Your task to perform on an android device: Open Google Chrome and click the shortcut for Amazon.com Image 0: 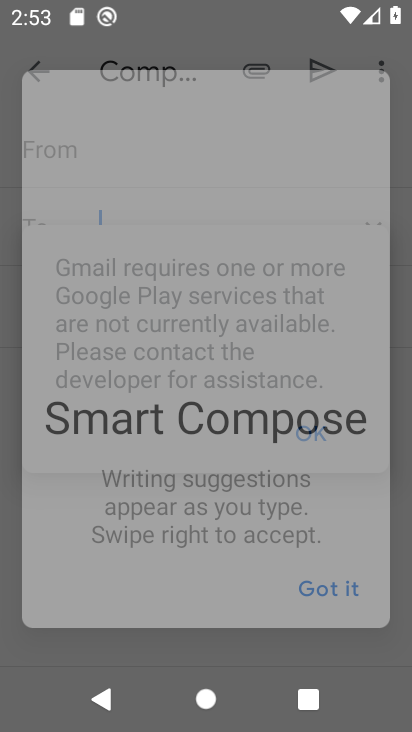
Step 0: press home button
Your task to perform on an android device: Open Google Chrome and click the shortcut for Amazon.com Image 1: 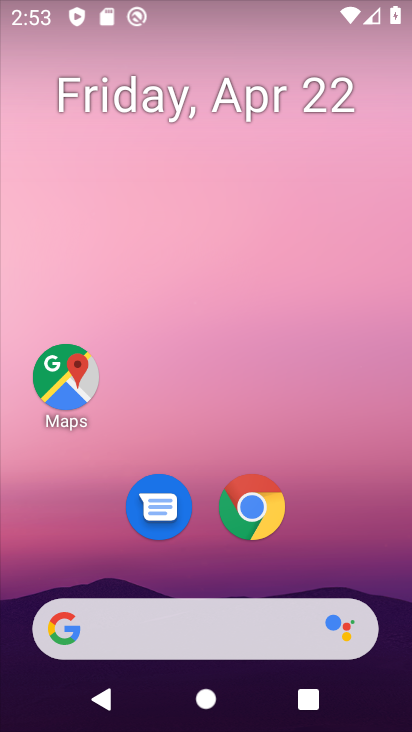
Step 1: click (258, 515)
Your task to perform on an android device: Open Google Chrome and click the shortcut for Amazon.com Image 2: 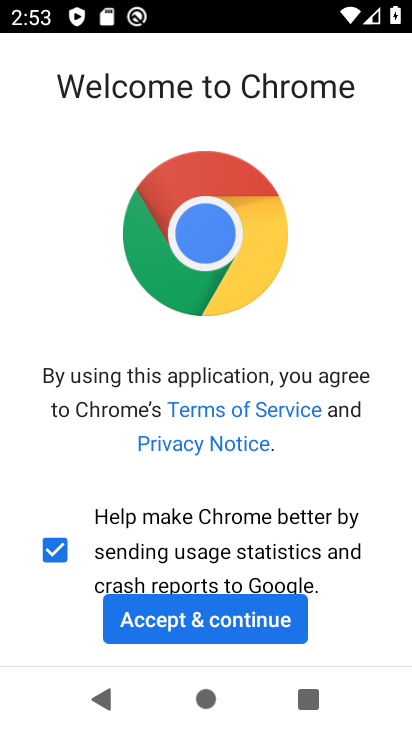
Step 2: click (246, 627)
Your task to perform on an android device: Open Google Chrome and click the shortcut for Amazon.com Image 3: 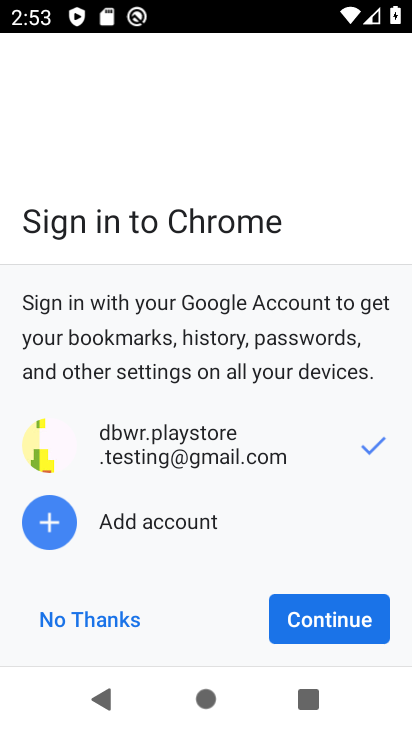
Step 3: click (327, 630)
Your task to perform on an android device: Open Google Chrome and click the shortcut for Amazon.com Image 4: 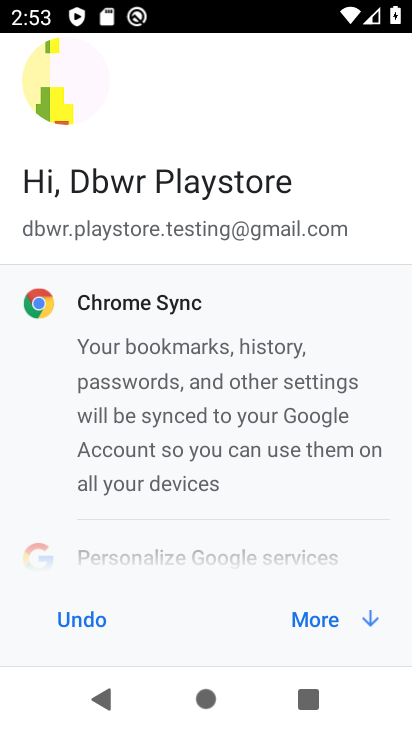
Step 4: click (327, 619)
Your task to perform on an android device: Open Google Chrome and click the shortcut for Amazon.com Image 5: 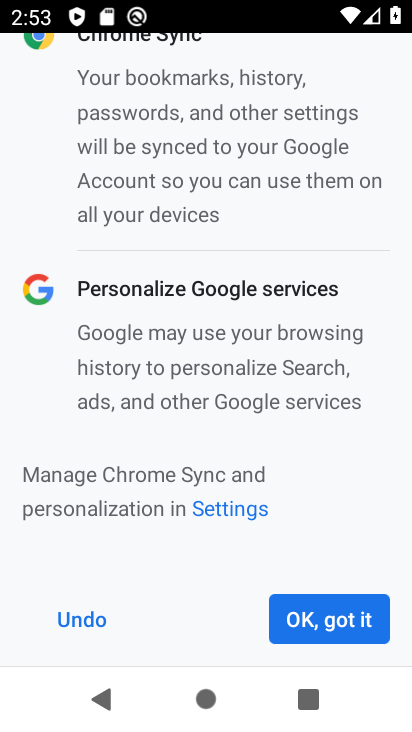
Step 5: click (327, 619)
Your task to perform on an android device: Open Google Chrome and click the shortcut for Amazon.com Image 6: 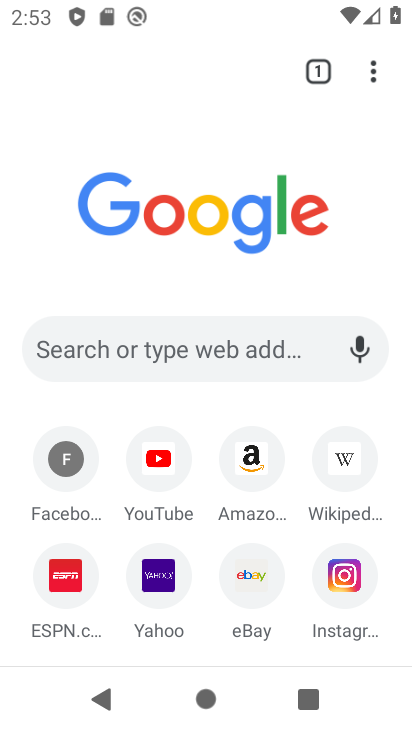
Step 6: click (253, 457)
Your task to perform on an android device: Open Google Chrome and click the shortcut for Amazon.com Image 7: 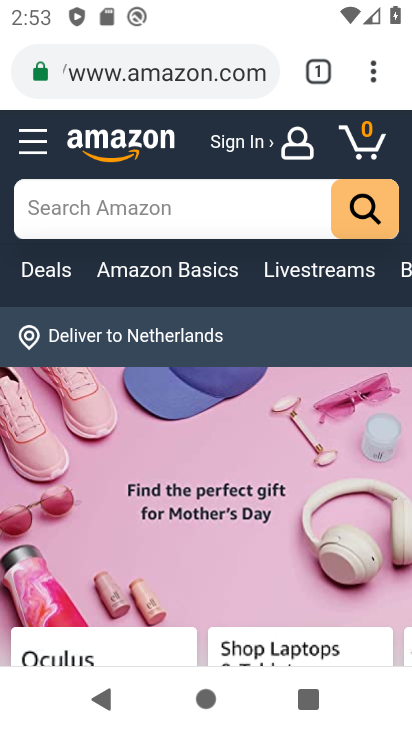
Step 7: task complete